Your task to perform on an android device: Open my contact list Image 0: 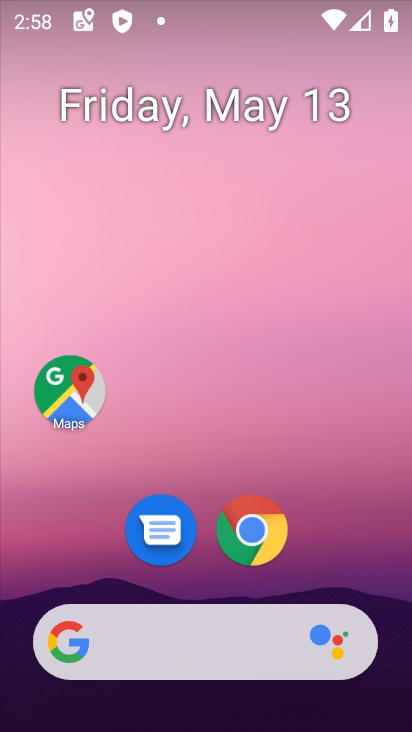
Step 0: drag from (324, 526) to (298, 143)
Your task to perform on an android device: Open my contact list Image 1: 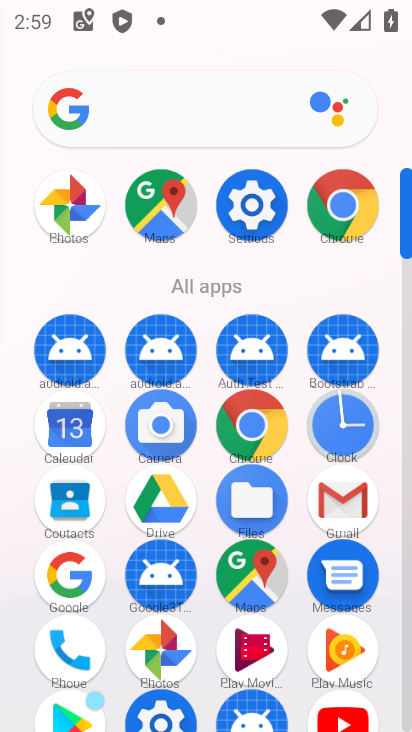
Step 1: click (66, 499)
Your task to perform on an android device: Open my contact list Image 2: 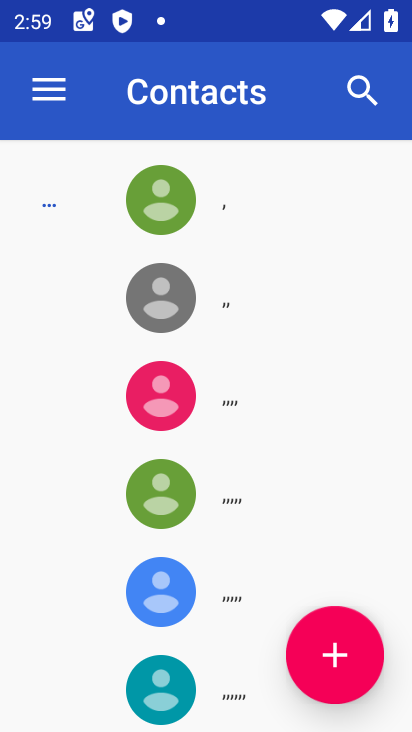
Step 2: task complete